Your task to perform on an android device: Go to settings Image 0: 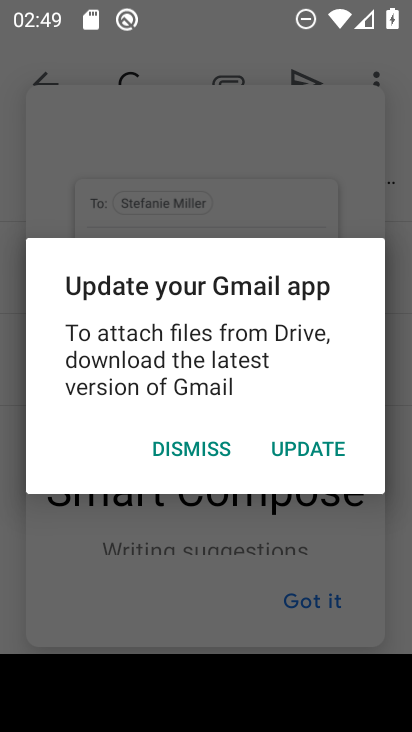
Step 0: press home button
Your task to perform on an android device: Go to settings Image 1: 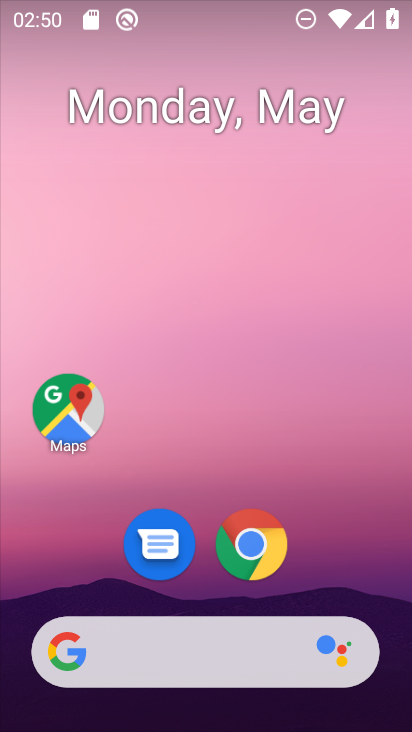
Step 1: drag from (368, 555) to (380, 140)
Your task to perform on an android device: Go to settings Image 2: 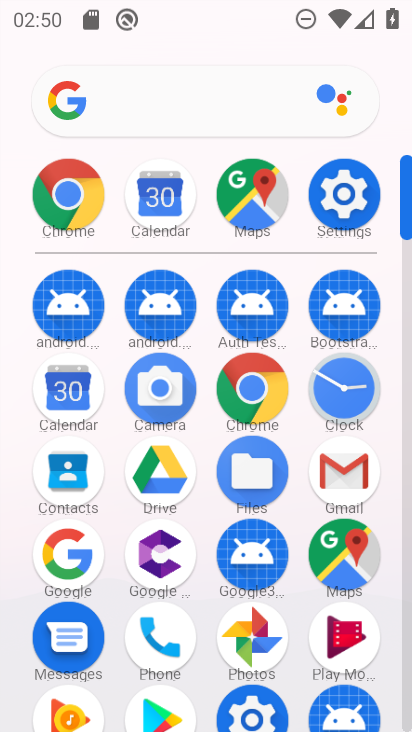
Step 2: click (343, 215)
Your task to perform on an android device: Go to settings Image 3: 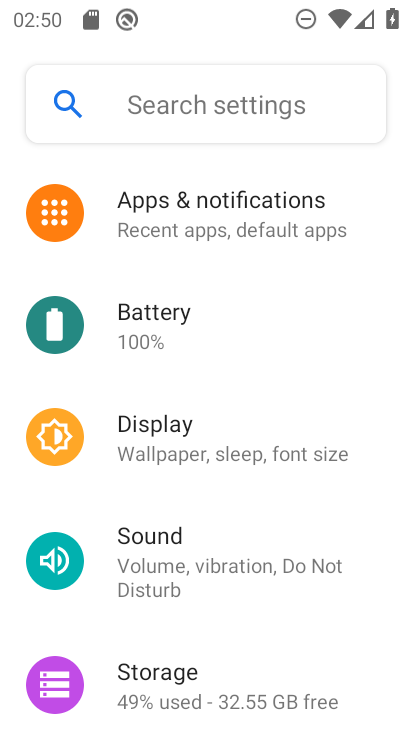
Step 3: task complete